Your task to perform on an android device: turn on improve location accuracy Image 0: 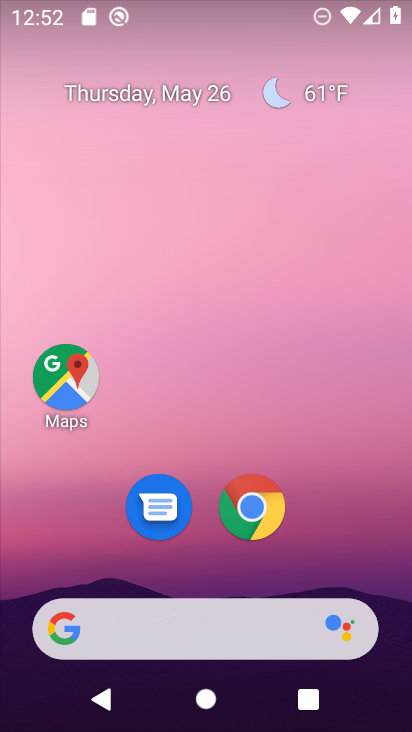
Step 0: drag from (377, 556) to (278, 193)
Your task to perform on an android device: turn on improve location accuracy Image 1: 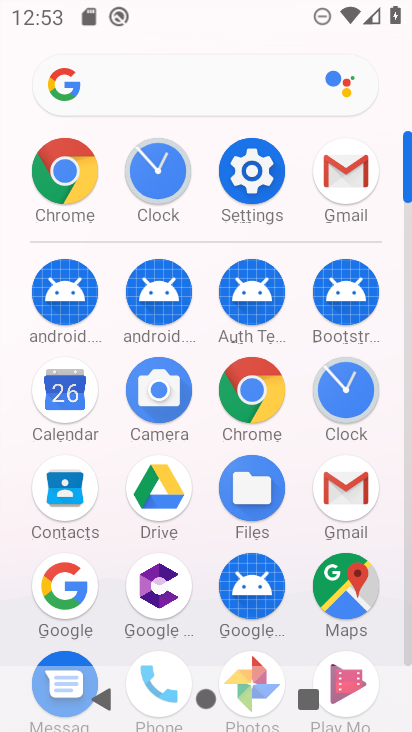
Step 1: click (260, 189)
Your task to perform on an android device: turn on improve location accuracy Image 2: 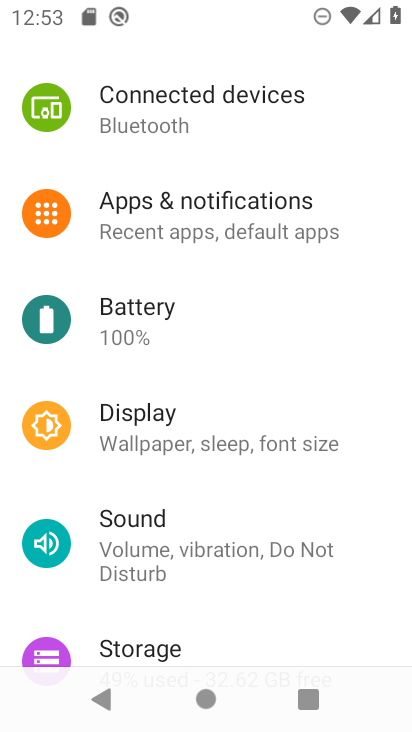
Step 2: drag from (200, 539) to (178, 431)
Your task to perform on an android device: turn on improve location accuracy Image 3: 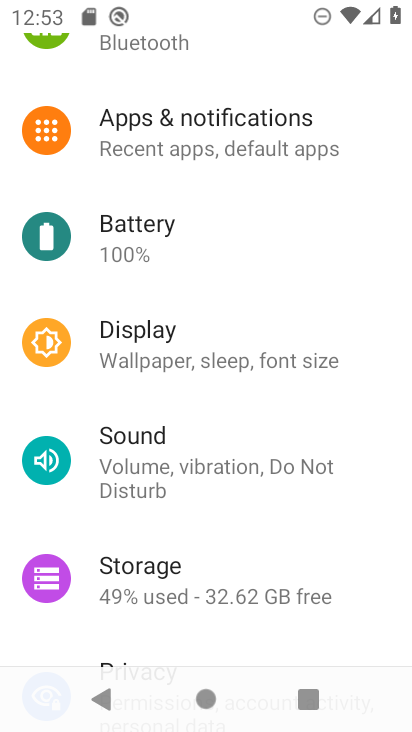
Step 3: drag from (227, 599) to (199, 310)
Your task to perform on an android device: turn on improve location accuracy Image 4: 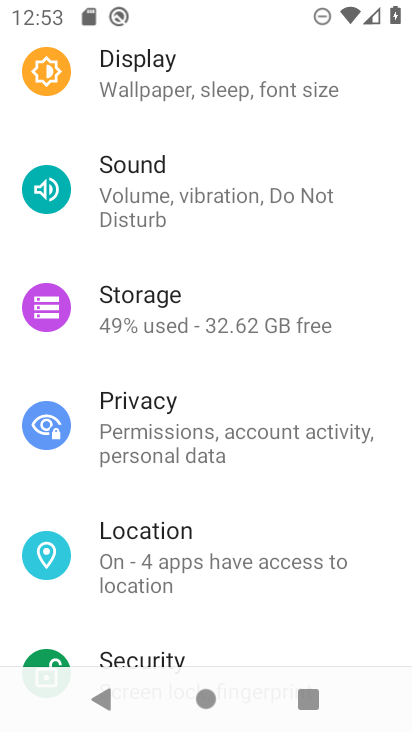
Step 4: click (203, 517)
Your task to perform on an android device: turn on improve location accuracy Image 5: 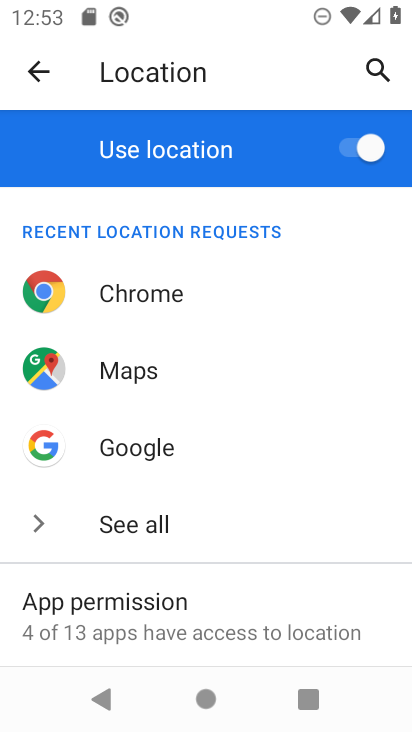
Step 5: drag from (211, 599) to (177, 148)
Your task to perform on an android device: turn on improve location accuracy Image 6: 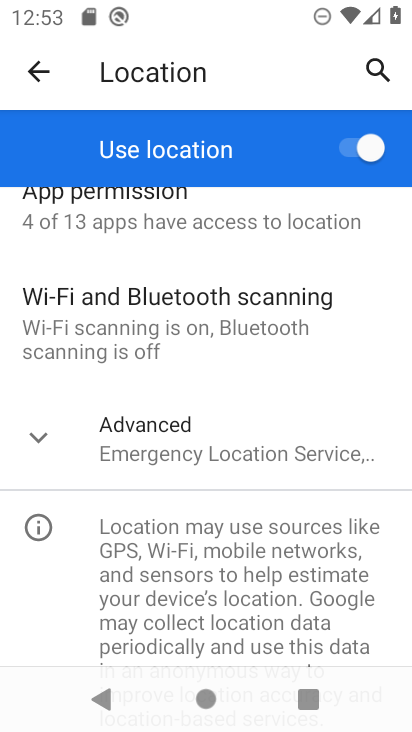
Step 6: click (176, 448)
Your task to perform on an android device: turn on improve location accuracy Image 7: 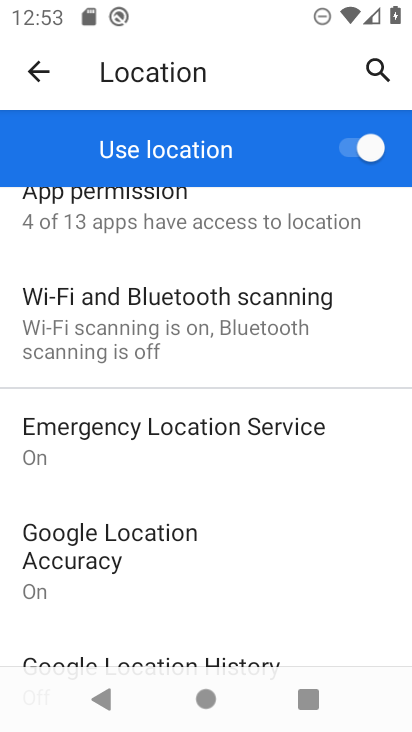
Step 7: click (140, 554)
Your task to perform on an android device: turn on improve location accuracy Image 8: 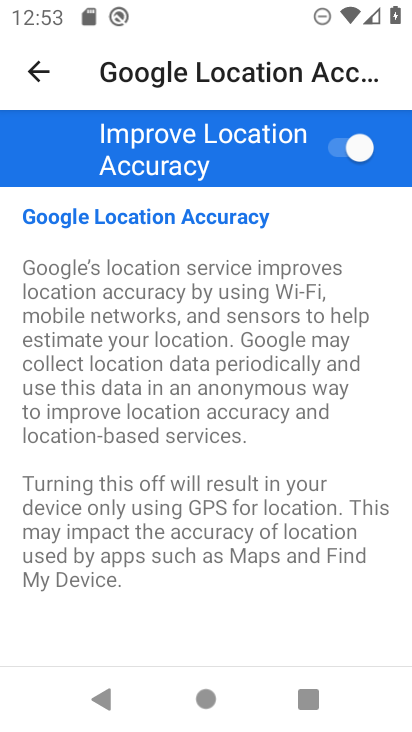
Step 8: task complete